Your task to perform on an android device: Go to Android settings Image 0: 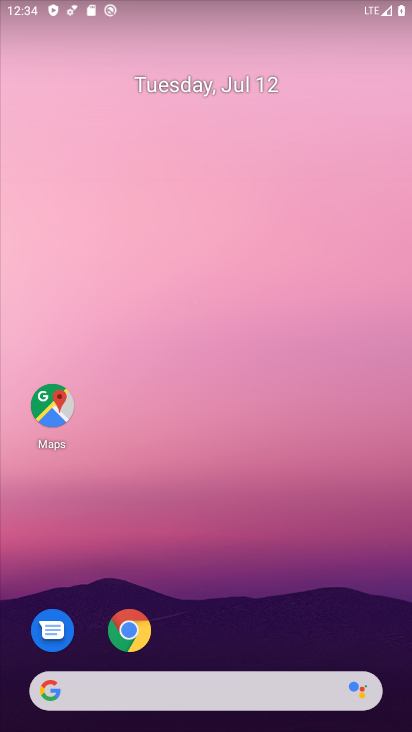
Step 0: drag from (259, 621) to (262, 2)
Your task to perform on an android device: Go to Android settings Image 1: 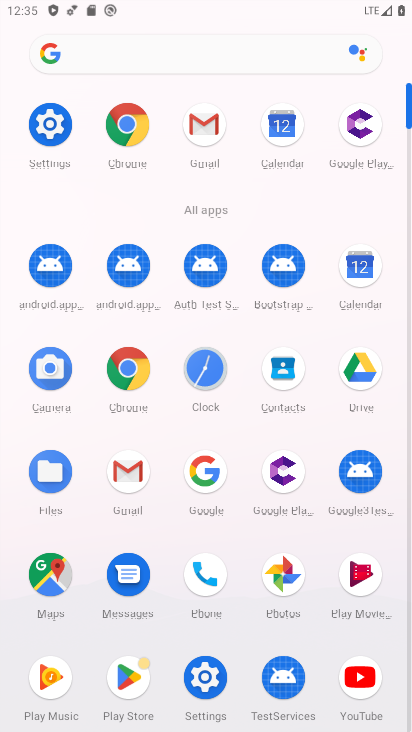
Step 1: click (44, 113)
Your task to perform on an android device: Go to Android settings Image 2: 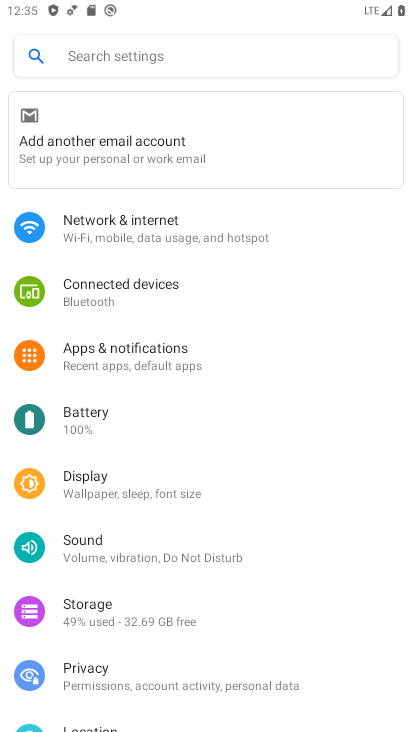
Step 2: drag from (67, 567) to (67, 273)
Your task to perform on an android device: Go to Android settings Image 3: 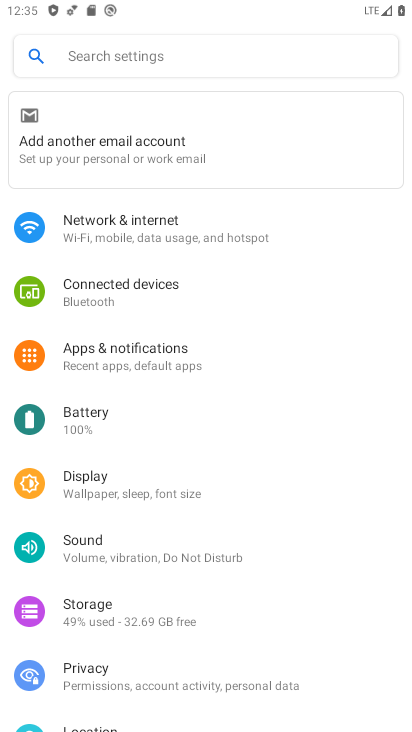
Step 3: drag from (112, 637) to (123, 227)
Your task to perform on an android device: Go to Android settings Image 4: 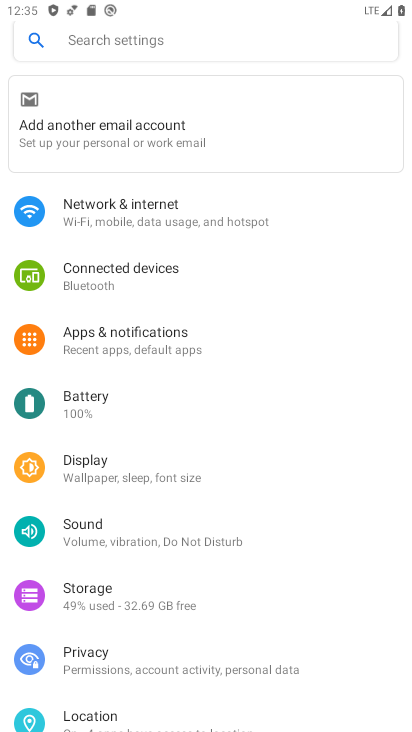
Step 4: drag from (135, 596) to (147, 233)
Your task to perform on an android device: Go to Android settings Image 5: 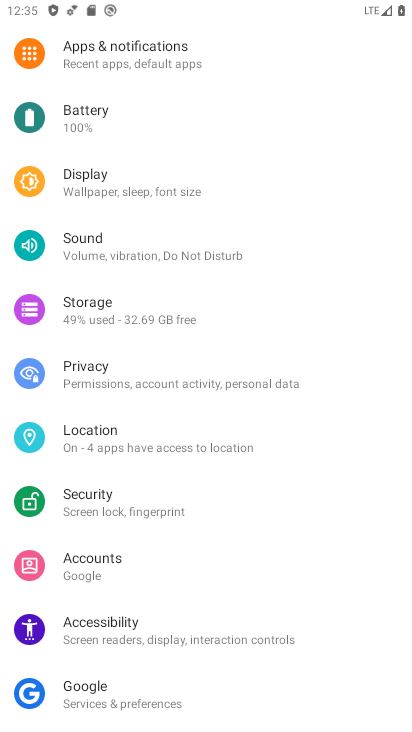
Step 5: drag from (154, 572) to (166, 85)
Your task to perform on an android device: Go to Android settings Image 6: 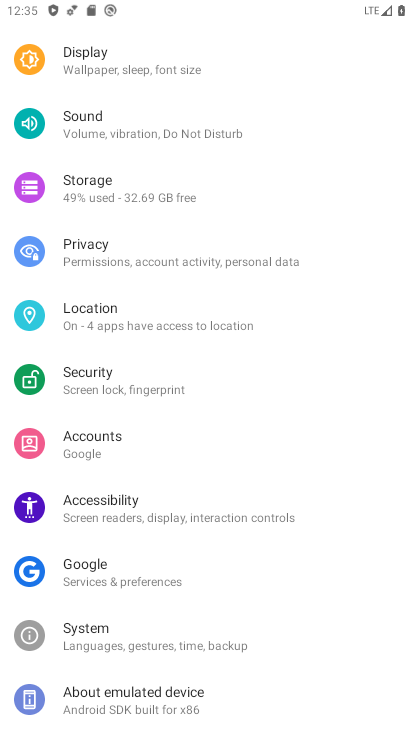
Step 6: click (126, 644)
Your task to perform on an android device: Go to Android settings Image 7: 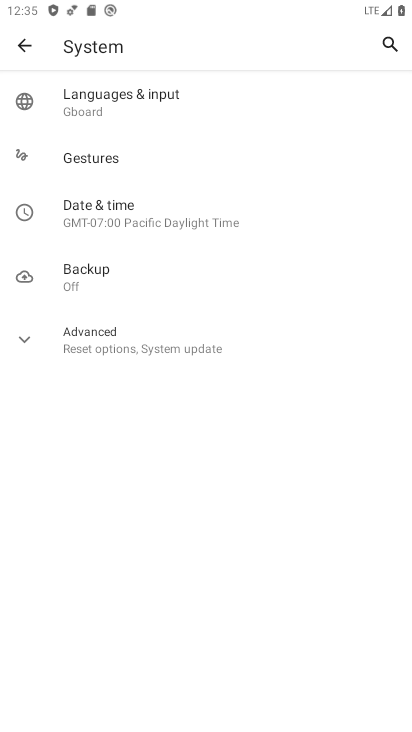
Step 7: task complete